Your task to perform on an android device: turn notification dots off Image 0: 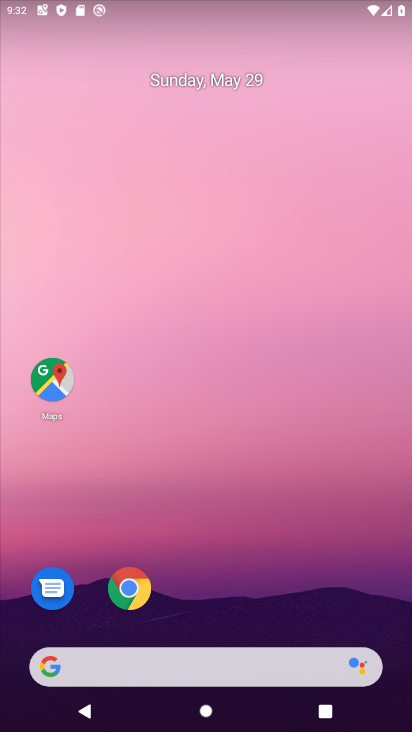
Step 0: press home button
Your task to perform on an android device: turn notification dots off Image 1: 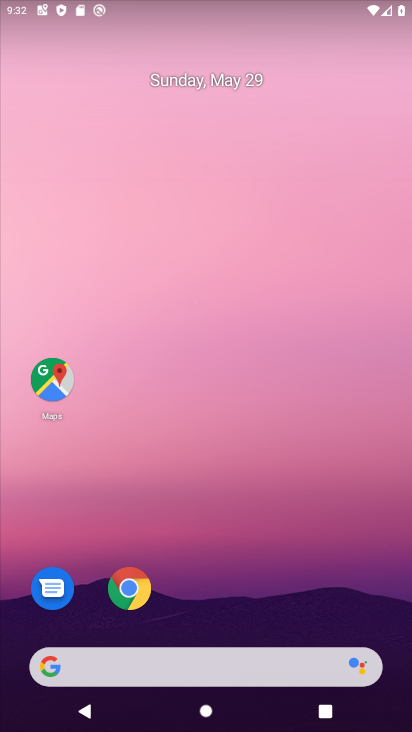
Step 1: drag from (52, 549) to (288, 81)
Your task to perform on an android device: turn notification dots off Image 2: 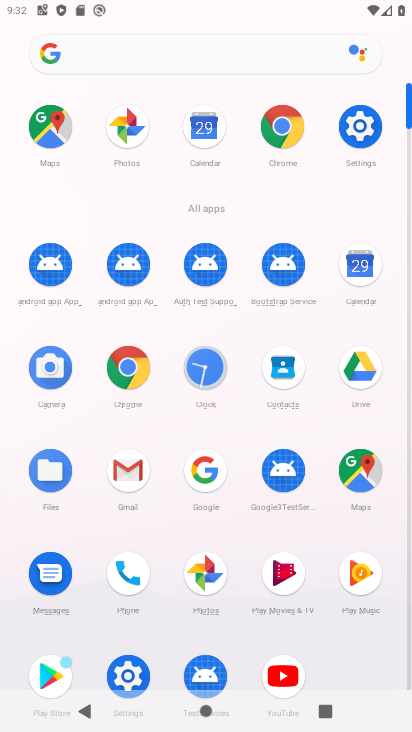
Step 2: click (355, 133)
Your task to perform on an android device: turn notification dots off Image 3: 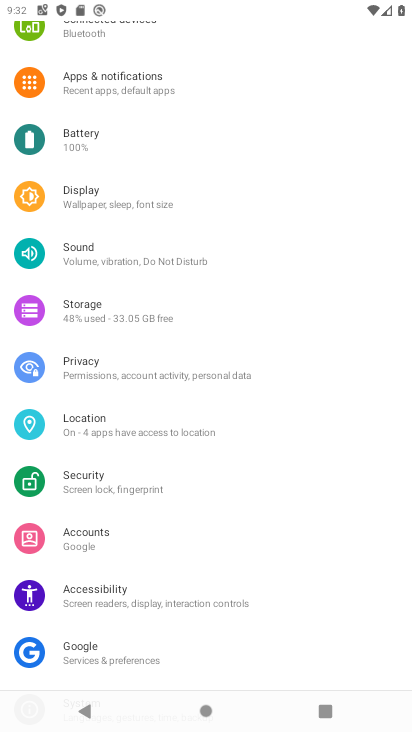
Step 3: click (60, 207)
Your task to perform on an android device: turn notification dots off Image 4: 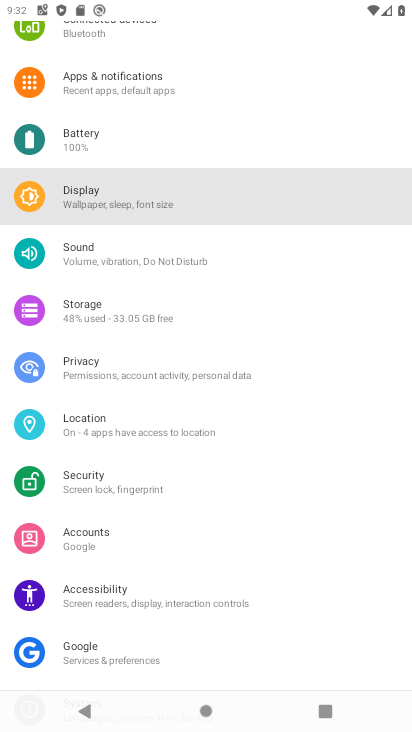
Step 4: click (183, 90)
Your task to perform on an android device: turn notification dots off Image 5: 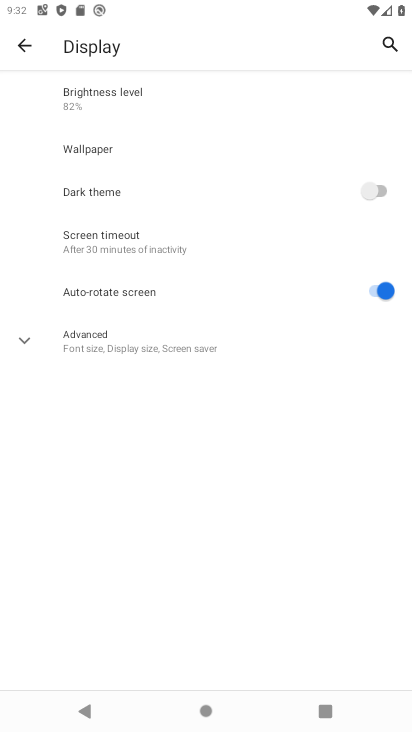
Step 5: click (183, 90)
Your task to perform on an android device: turn notification dots off Image 6: 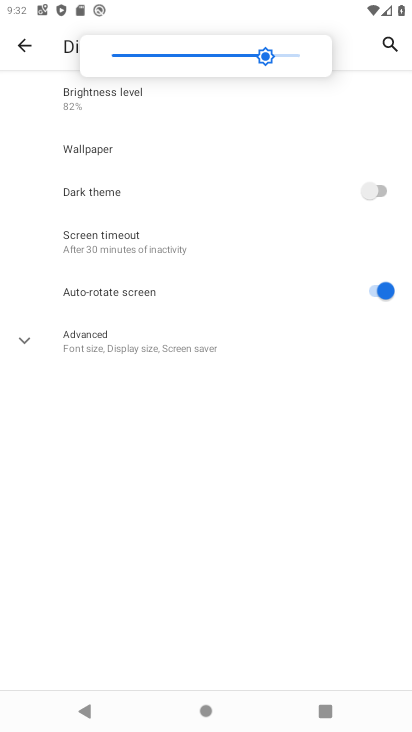
Step 6: press back button
Your task to perform on an android device: turn notification dots off Image 7: 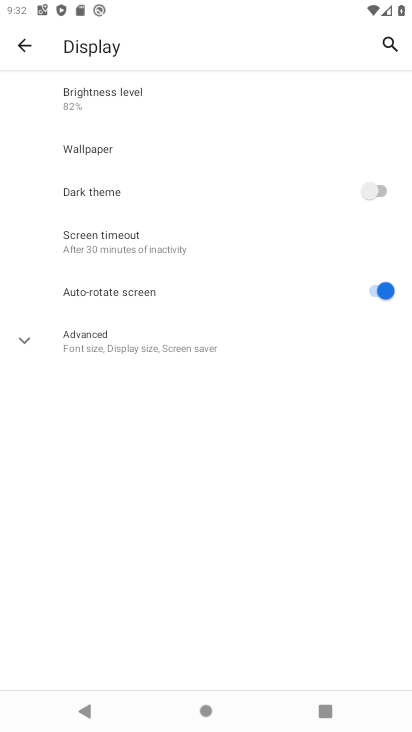
Step 7: press back button
Your task to perform on an android device: turn notification dots off Image 8: 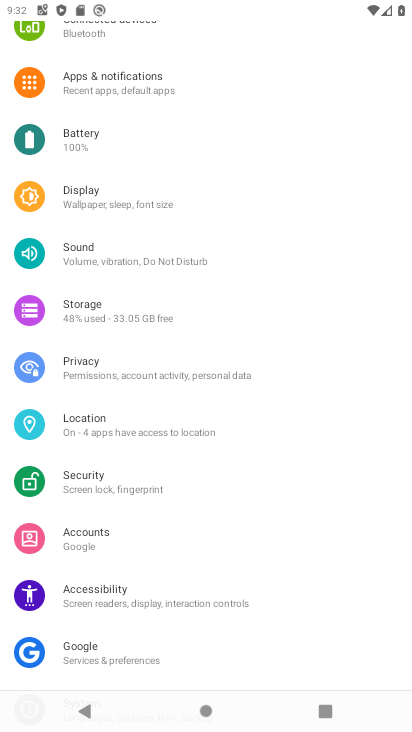
Step 8: click (206, 78)
Your task to perform on an android device: turn notification dots off Image 9: 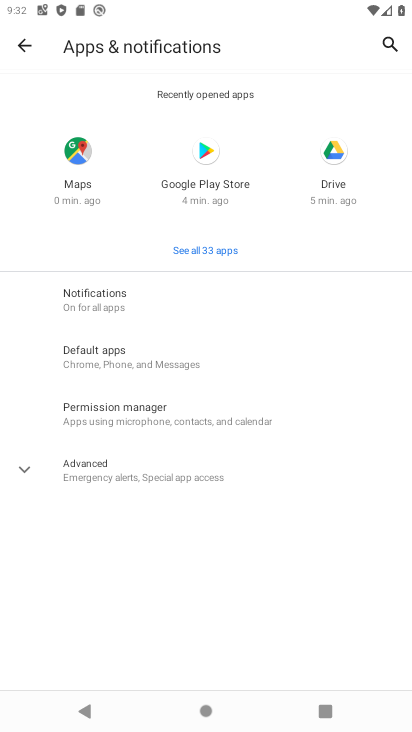
Step 9: click (99, 302)
Your task to perform on an android device: turn notification dots off Image 10: 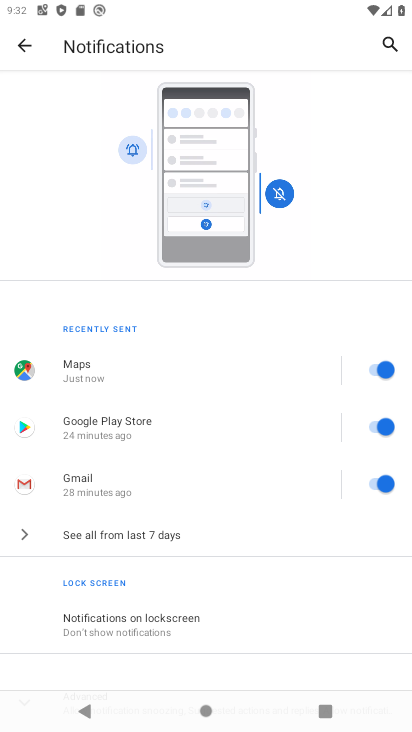
Step 10: drag from (19, 640) to (169, 173)
Your task to perform on an android device: turn notification dots off Image 11: 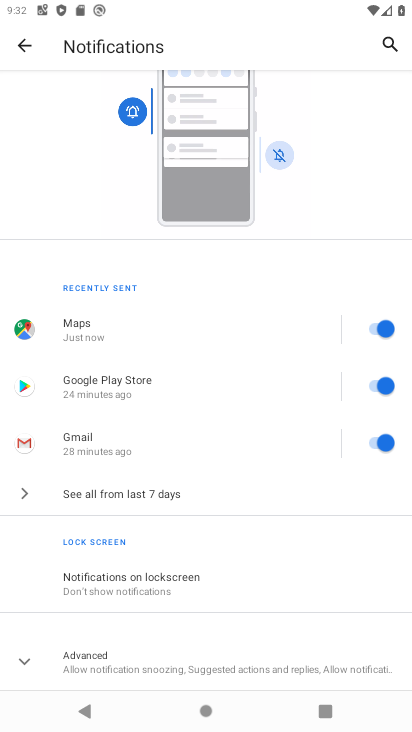
Step 11: click (119, 662)
Your task to perform on an android device: turn notification dots off Image 12: 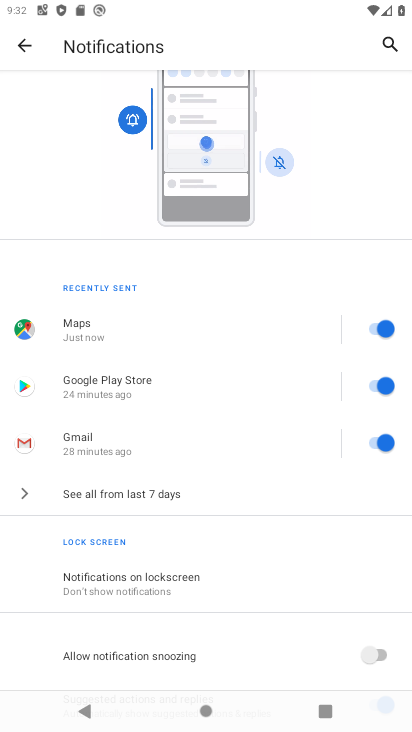
Step 12: drag from (23, 611) to (261, 228)
Your task to perform on an android device: turn notification dots off Image 13: 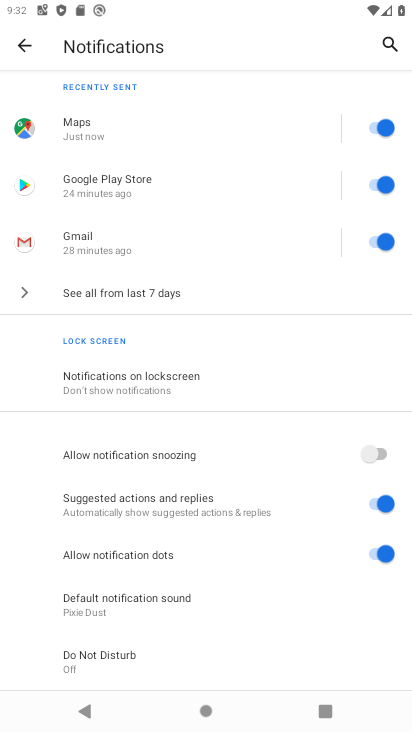
Step 13: click (387, 550)
Your task to perform on an android device: turn notification dots off Image 14: 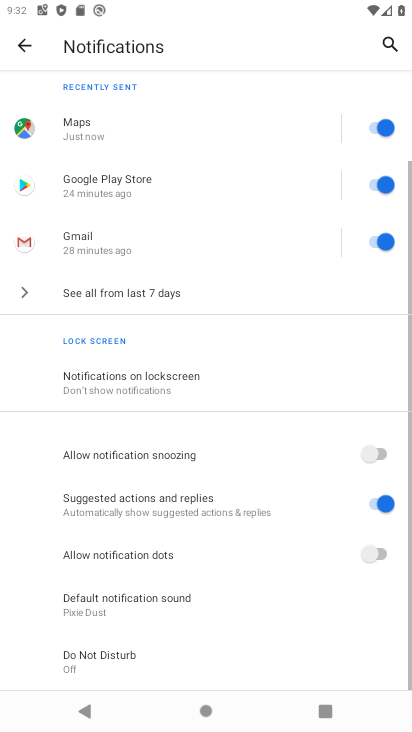
Step 14: task complete